Your task to perform on an android device: Is it going to rain this weekend? Image 0: 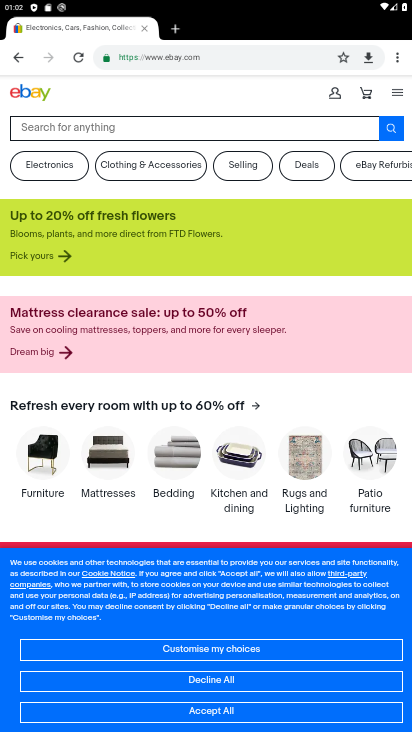
Step 0: click (256, 66)
Your task to perform on an android device: Is it going to rain this weekend? Image 1: 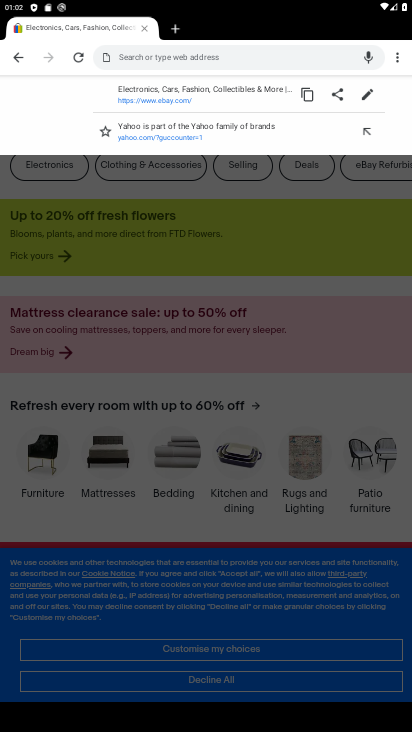
Step 1: type "weather"
Your task to perform on an android device: Is it going to rain this weekend? Image 2: 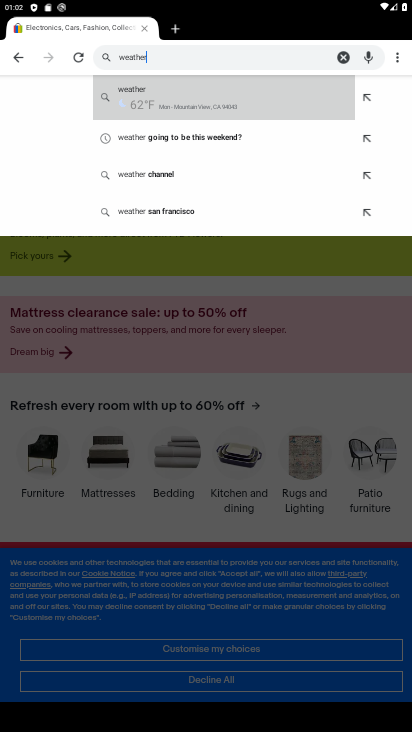
Step 2: click (282, 103)
Your task to perform on an android device: Is it going to rain this weekend? Image 3: 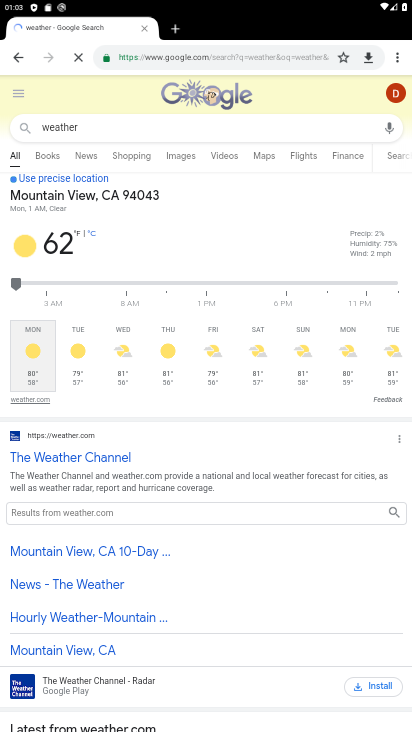
Step 3: click (259, 350)
Your task to perform on an android device: Is it going to rain this weekend? Image 4: 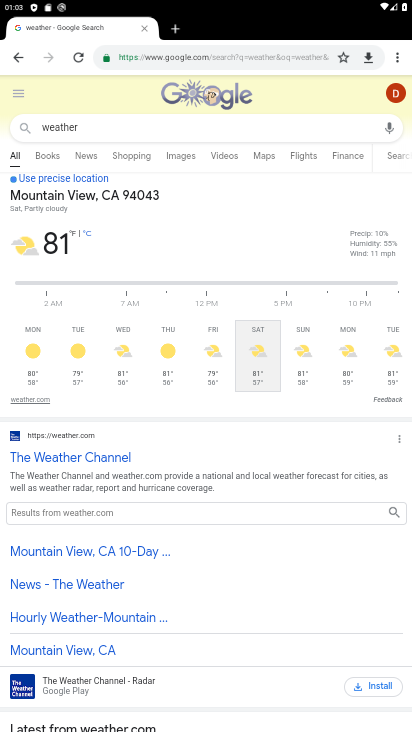
Step 4: task complete